Your task to perform on an android device: Open Reddit.com Image 0: 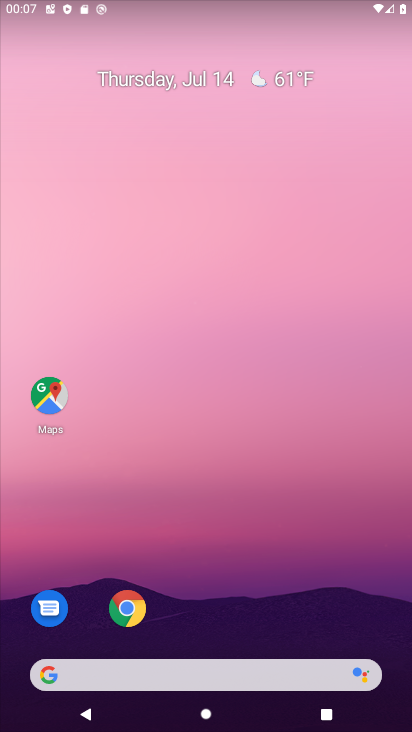
Step 0: drag from (187, 586) to (189, 283)
Your task to perform on an android device: Open Reddit.com Image 1: 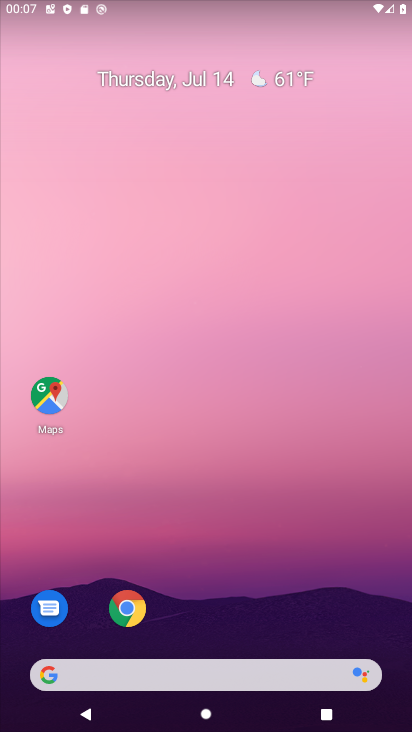
Step 1: drag from (173, 616) to (181, 225)
Your task to perform on an android device: Open Reddit.com Image 2: 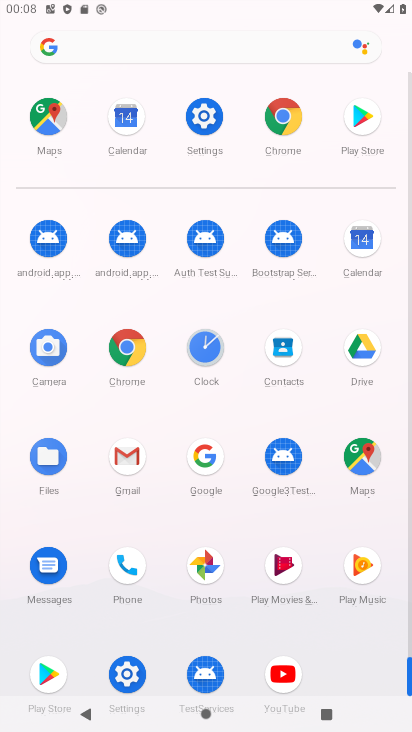
Step 2: click (151, 48)
Your task to perform on an android device: Open Reddit.com Image 3: 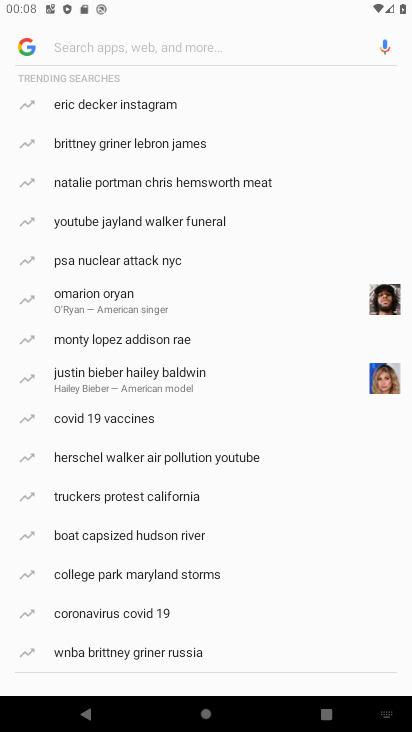
Step 3: type "Reddit.com"
Your task to perform on an android device: Open Reddit.com Image 4: 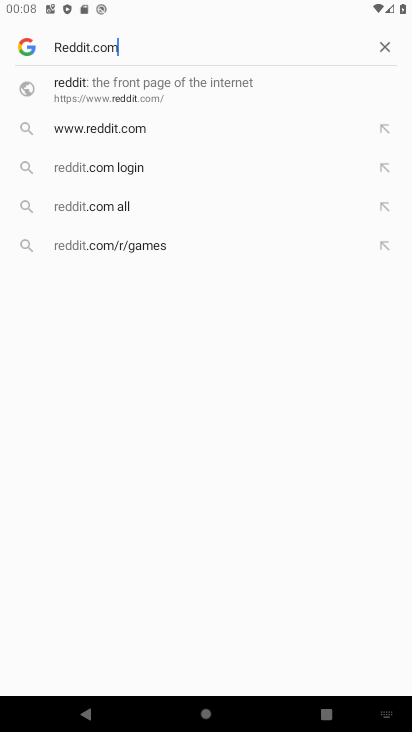
Step 4: type ""
Your task to perform on an android device: Open Reddit.com Image 5: 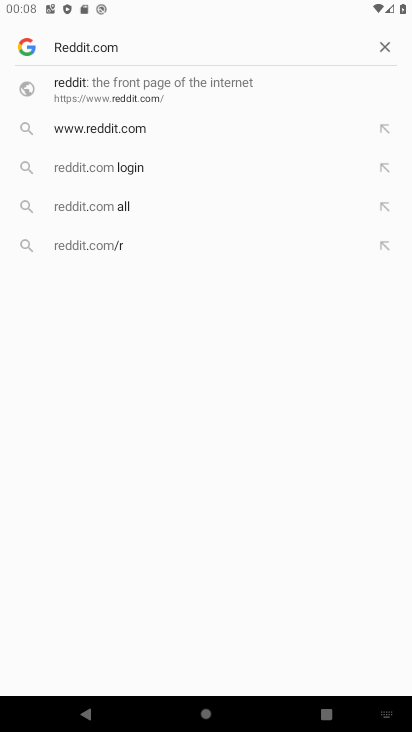
Step 5: click (145, 126)
Your task to perform on an android device: Open Reddit.com Image 6: 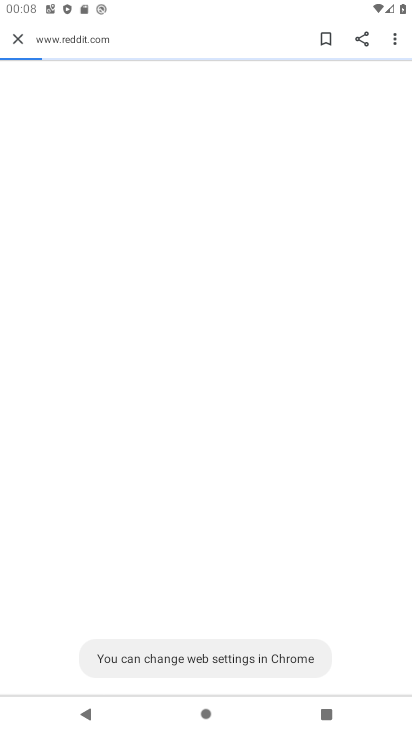
Step 6: task complete